Your task to perform on an android device: Open Youtube and go to the subscriptions tab Image 0: 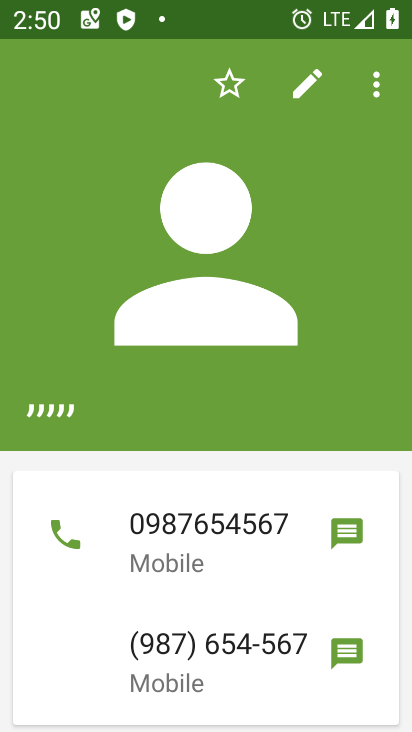
Step 0: press home button
Your task to perform on an android device: Open Youtube and go to the subscriptions tab Image 1: 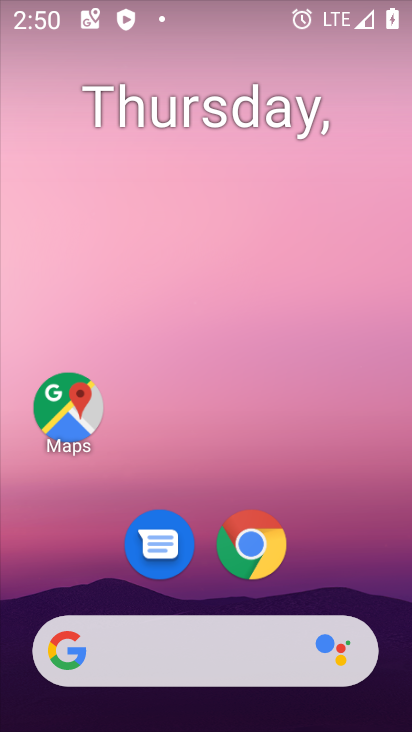
Step 1: drag from (303, 583) to (343, 151)
Your task to perform on an android device: Open Youtube and go to the subscriptions tab Image 2: 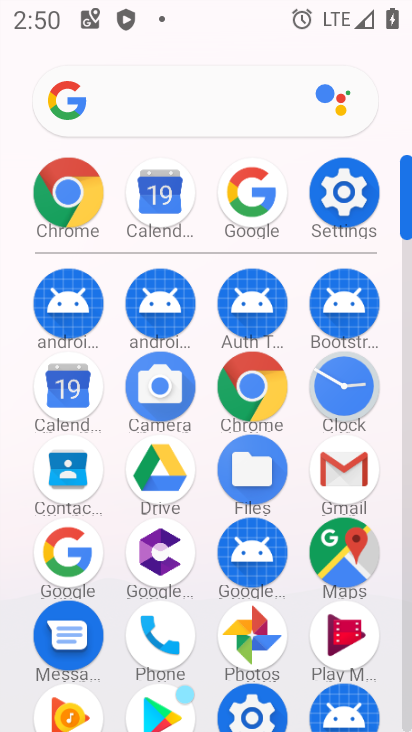
Step 2: drag from (195, 575) to (277, 90)
Your task to perform on an android device: Open Youtube and go to the subscriptions tab Image 3: 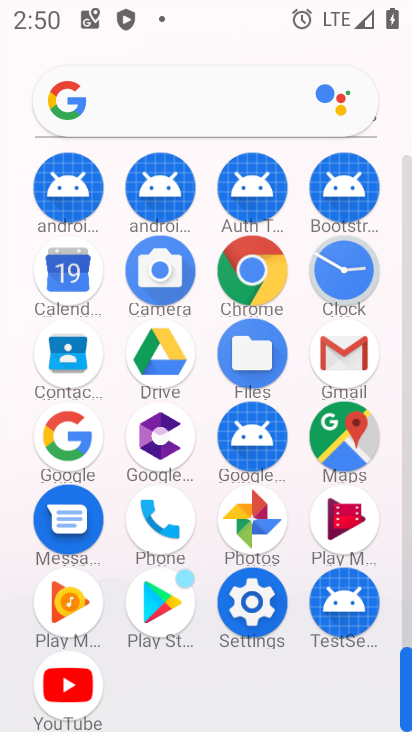
Step 3: click (62, 678)
Your task to perform on an android device: Open Youtube and go to the subscriptions tab Image 4: 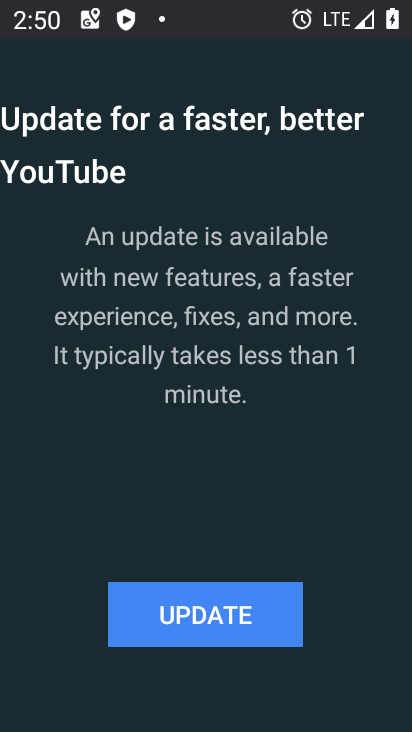
Step 4: click (261, 637)
Your task to perform on an android device: Open Youtube and go to the subscriptions tab Image 5: 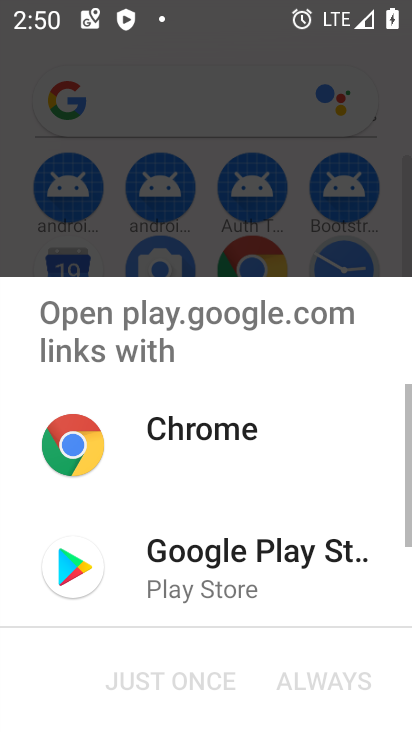
Step 5: click (258, 581)
Your task to perform on an android device: Open Youtube and go to the subscriptions tab Image 6: 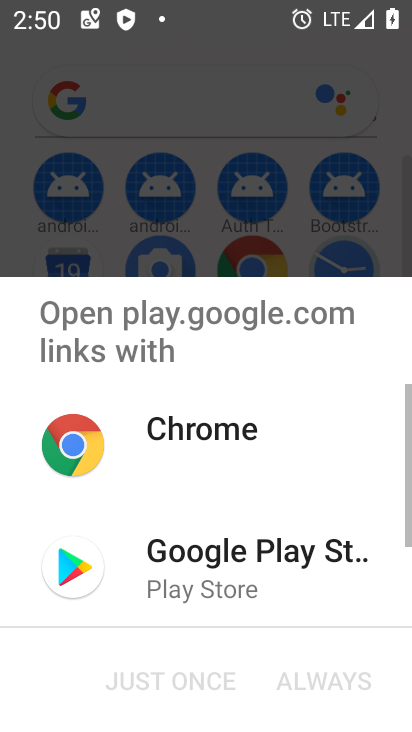
Step 6: click (258, 581)
Your task to perform on an android device: Open Youtube and go to the subscriptions tab Image 7: 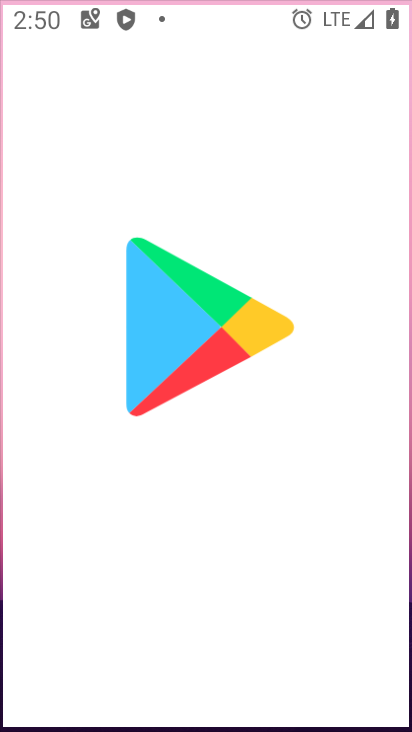
Step 7: click (258, 581)
Your task to perform on an android device: Open Youtube and go to the subscriptions tab Image 8: 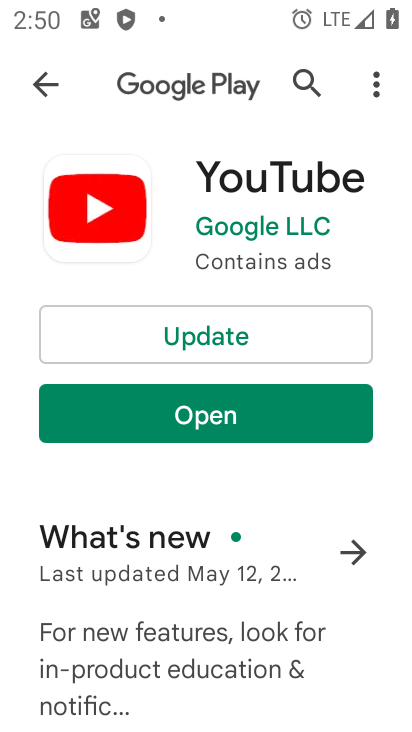
Step 8: click (228, 318)
Your task to perform on an android device: Open Youtube and go to the subscriptions tab Image 9: 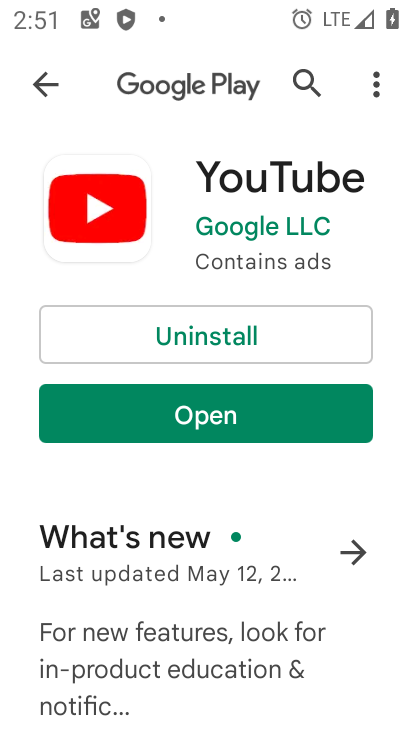
Step 9: click (192, 428)
Your task to perform on an android device: Open Youtube and go to the subscriptions tab Image 10: 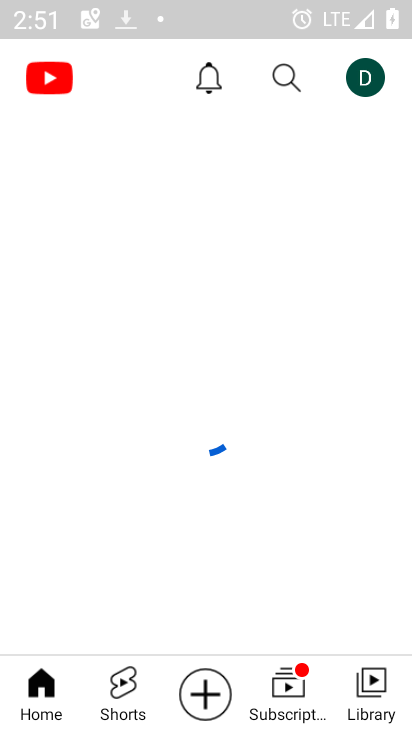
Step 10: click (251, 688)
Your task to perform on an android device: Open Youtube and go to the subscriptions tab Image 11: 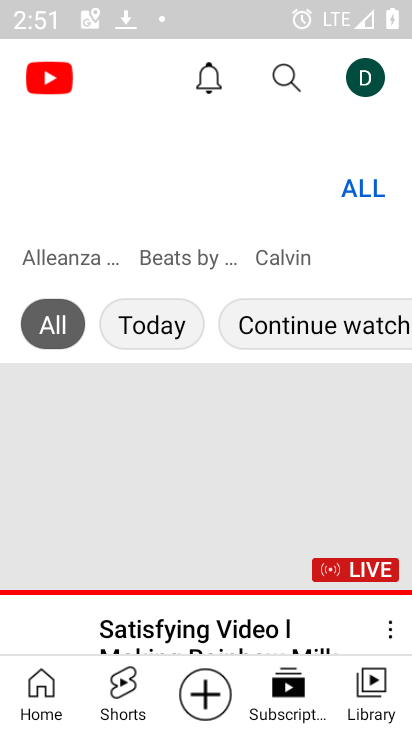
Step 11: click (297, 697)
Your task to perform on an android device: Open Youtube and go to the subscriptions tab Image 12: 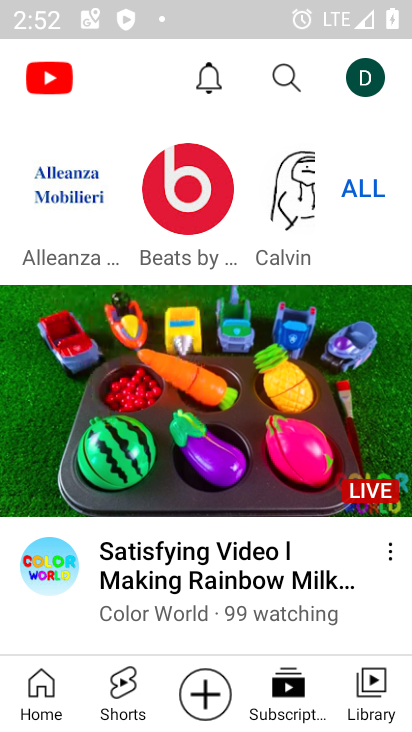
Step 12: task complete